Your task to perform on an android device: What's the weather? Image 0: 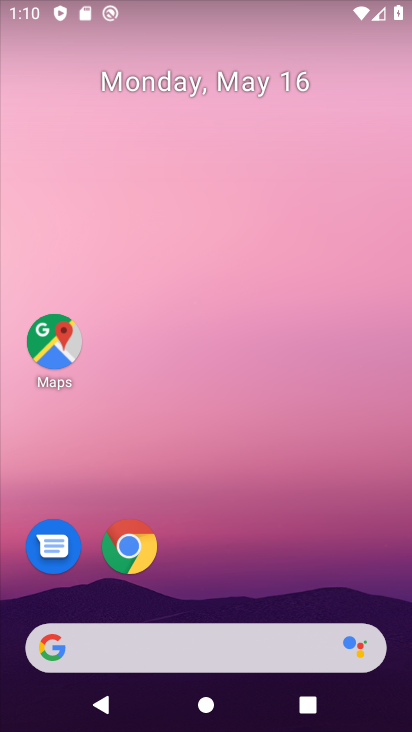
Step 0: drag from (171, 531) to (227, 182)
Your task to perform on an android device: What's the weather? Image 1: 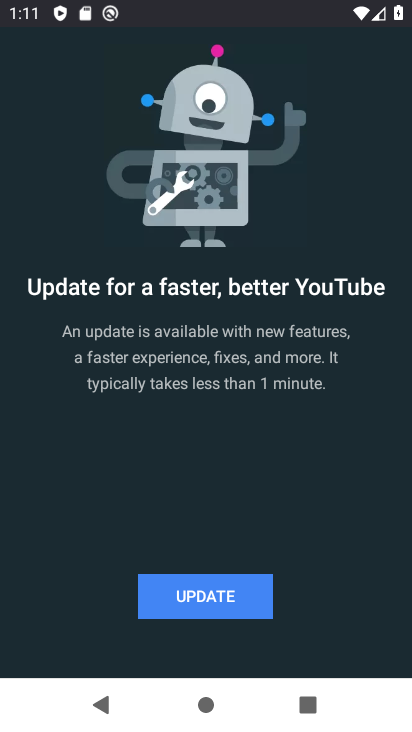
Step 1: press home button
Your task to perform on an android device: What's the weather? Image 2: 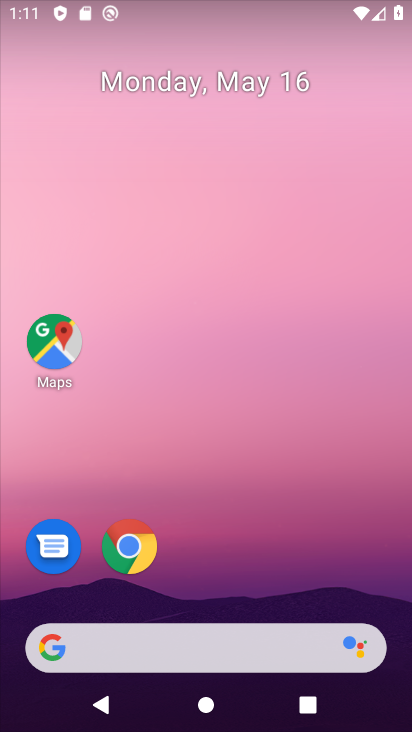
Step 2: click (126, 552)
Your task to perform on an android device: What's the weather? Image 3: 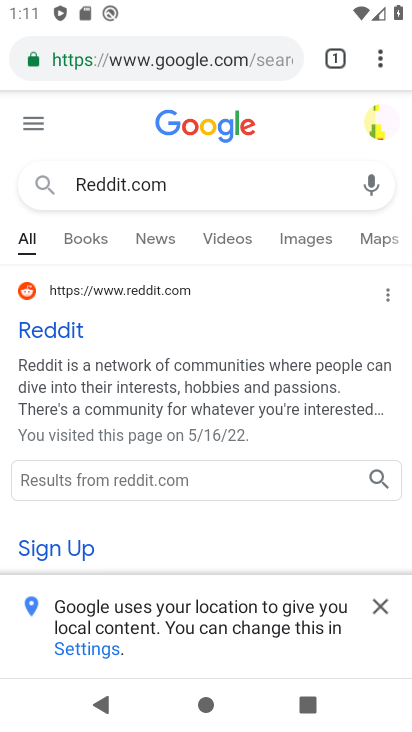
Step 3: click (131, 66)
Your task to perform on an android device: What's the weather? Image 4: 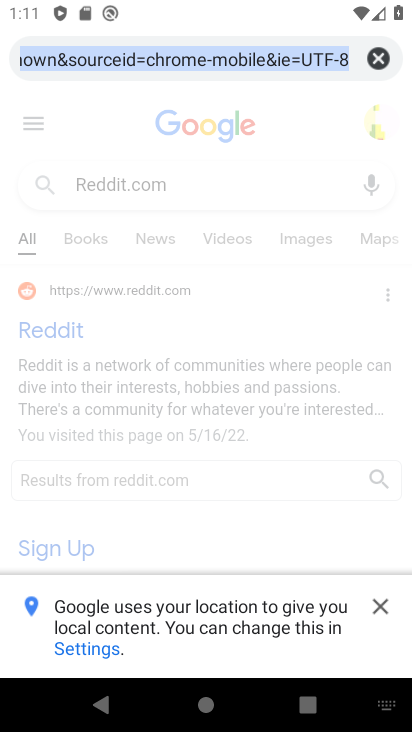
Step 4: type "weather"
Your task to perform on an android device: What's the weather? Image 5: 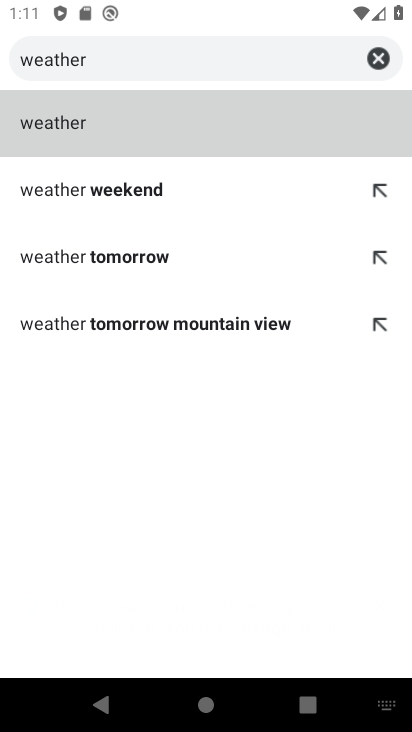
Step 5: click (128, 121)
Your task to perform on an android device: What's the weather? Image 6: 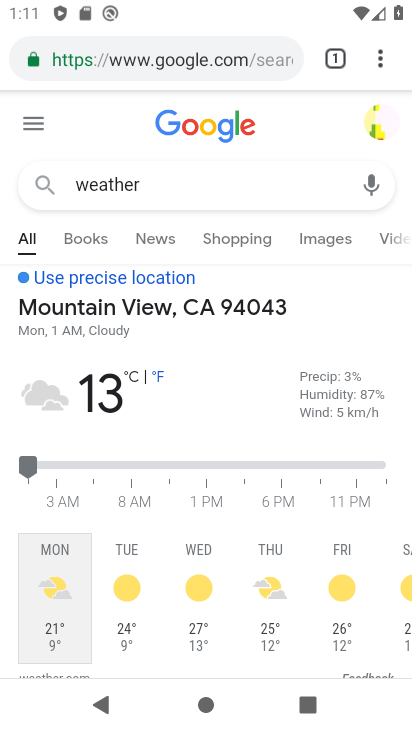
Step 6: task complete